Your task to perform on an android device: Do I have any events today? Image 0: 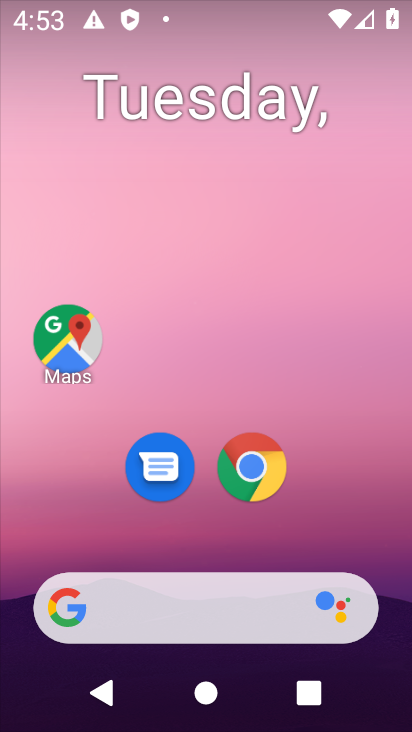
Step 0: drag from (313, 559) to (147, 0)
Your task to perform on an android device: Do I have any events today? Image 1: 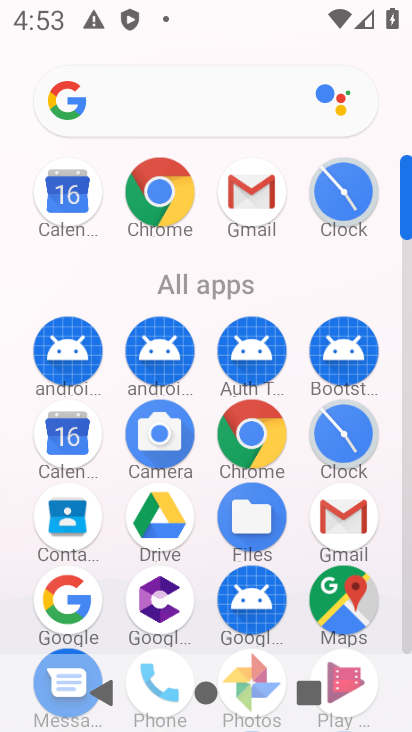
Step 1: click (69, 205)
Your task to perform on an android device: Do I have any events today? Image 2: 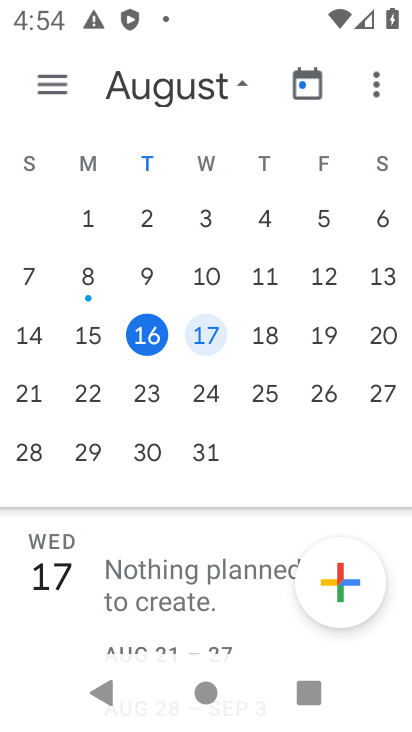
Step 2: click (196, 333)
Your task to perform on an android device: Do I have any events today? Image 3: 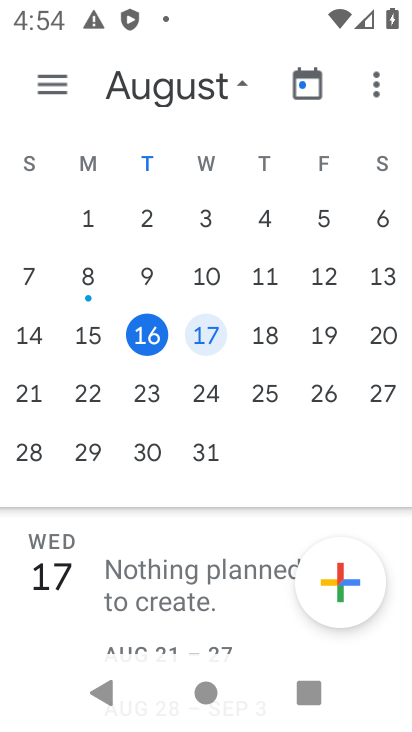
Step 3: task complete